Your task to perform on an android device: check the backup settings in the google photos Image 0: 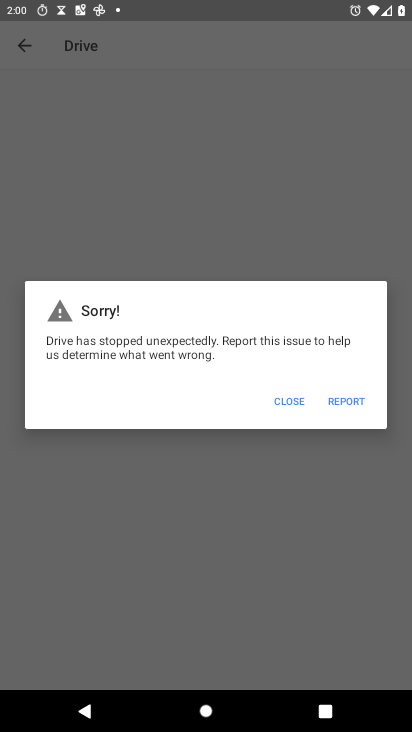
Step 0: press home button
Your task to perform on an android device: check the backup settings in the google photos Image 1: 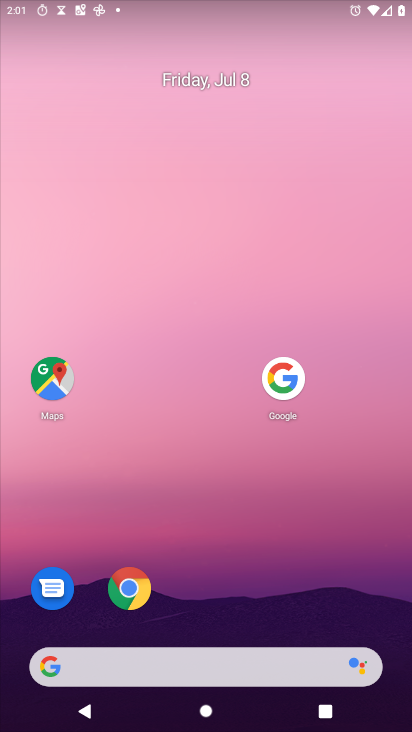
Step 1: drag from (188, 656) to (273, 78)
Your task to perform on an android device: check the backup settings in the google photos Image 2: 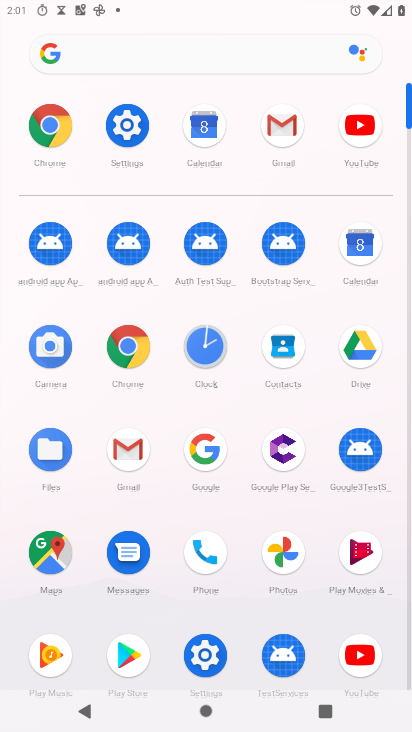
Step 2: click (289, 552)
Your task to perform on an android device: check the backup settings in the google photos Image 3: 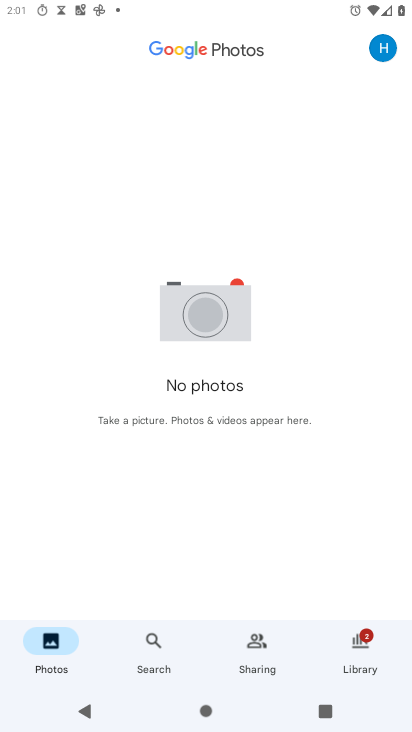
Step 3: click (379, 42)
Your task to perform on an android device: check the backup settings in the google photos Image 4: 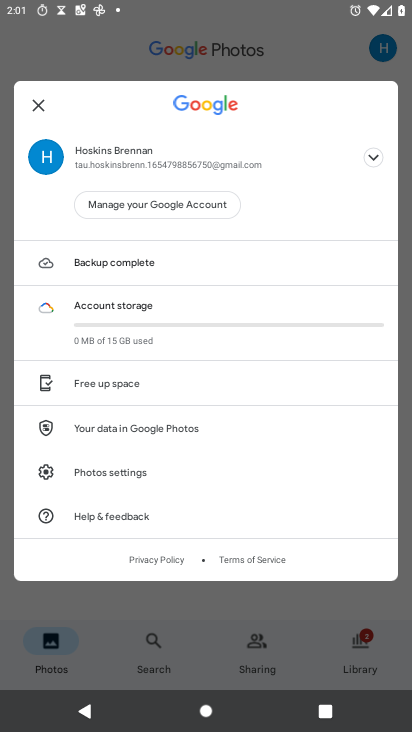
Step 4: click (143, 260)
Your task to perform on an android device: check the backup settings in the google photos Image 5: 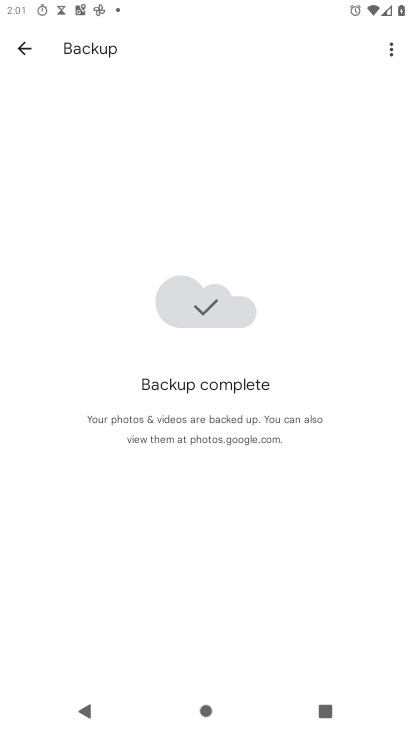
Step 5: click (28, 48)
Your task to perform on an android device: check the backup settings in the google photos Image 6: 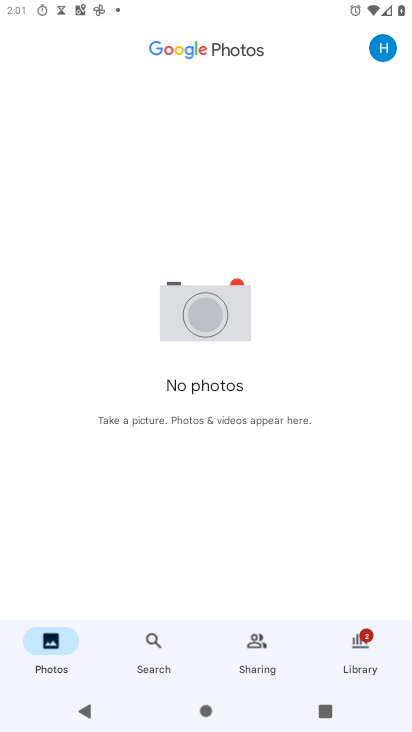
Step 6: click (380, 46)
Your task to perform on an android device: check the backup settings in the google photos Image 7: 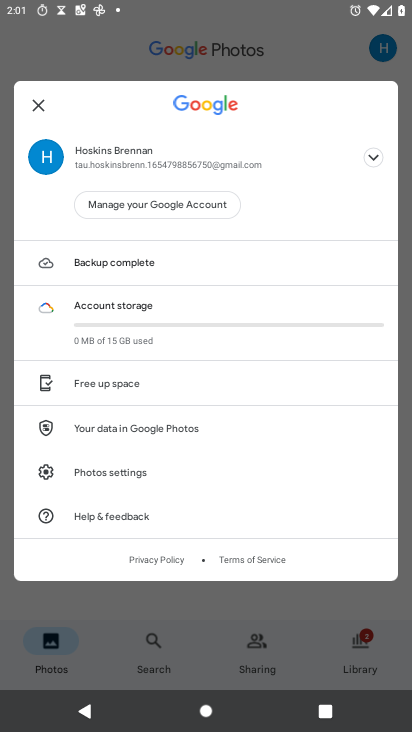
Step 7: click (125, 469)
Your task to perform on an android device: check the backup settings in the google photos Image 8: 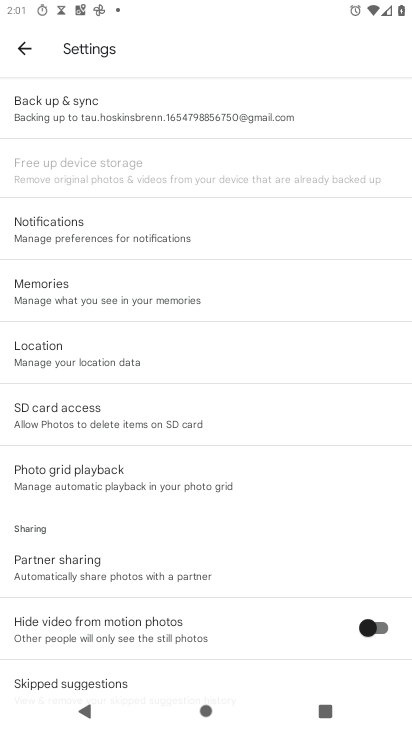
Step 8: click (133, 120)
Your task to perform on an android device: check the backup settings in the google photos Image 9: 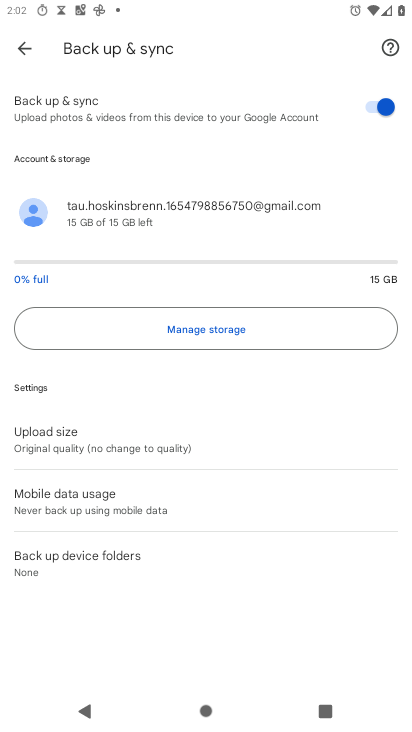
Step 9: task complete